Your task to perform on an android device: delete the emails in spam in the gmail app Image 0: 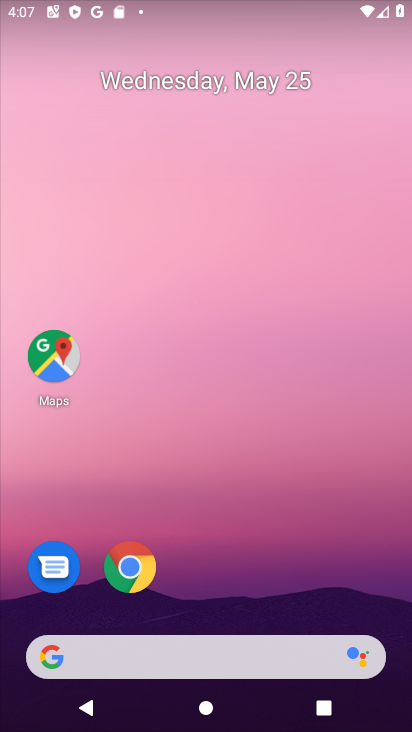
Step 0: drag from (246, 533) to (189, 10)
Your task to perform on an android device: delete the emails in spam in the gmail app Image 1: 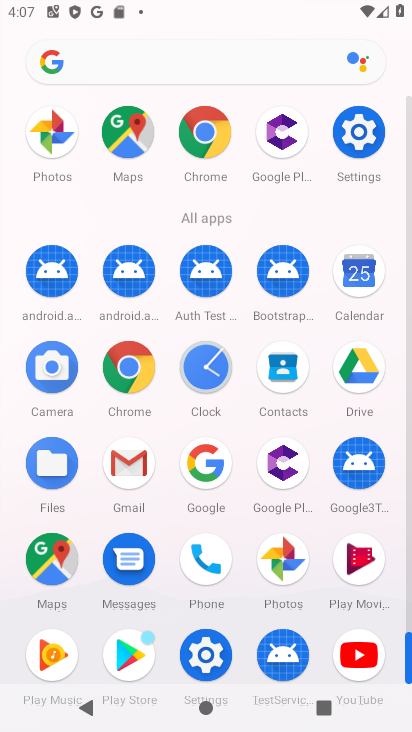
Step 1: drag from (6, 603) to (10, 284)
Your task to perform on an android device: delete the emails in spam in the gmail app Image 2: 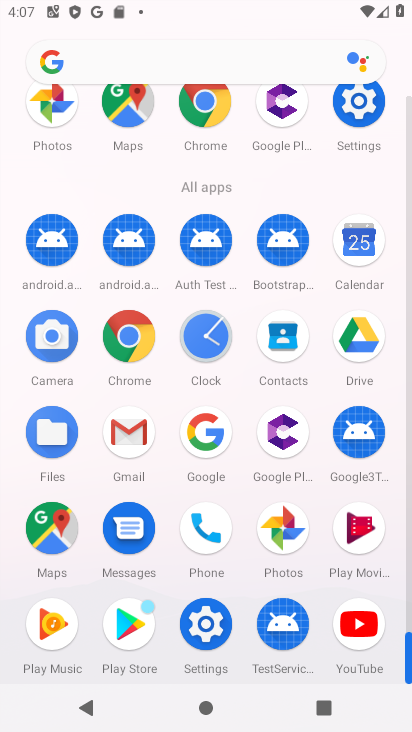
Step 2: click (125, 427)
Your task to perform on an android device: delete the emails in spam in the gmail app Image 3: 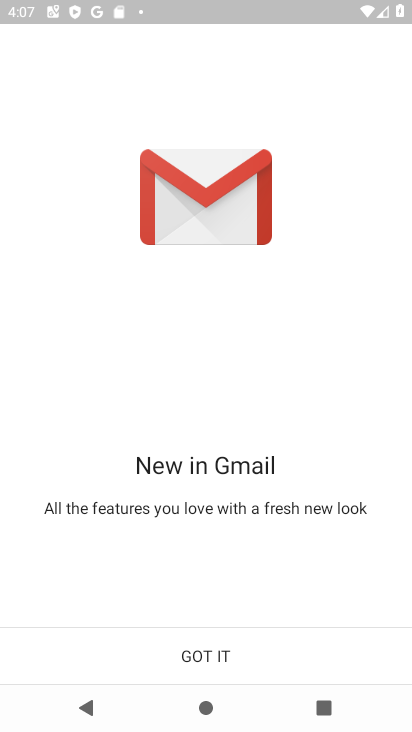
Step 3: click (192, 644)
Your task to perform on an android device: delete the emails in spam in the gmail app Image 4: 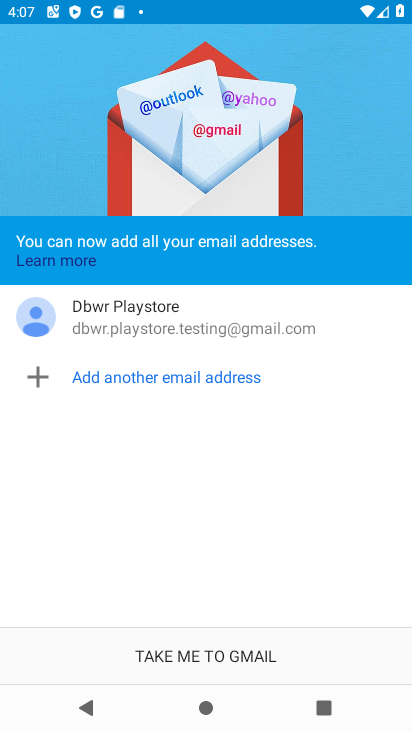
Step 4: click (192, 644)
Your task to perform on an android device: delete the emails in spam in the gmail app Image 5: 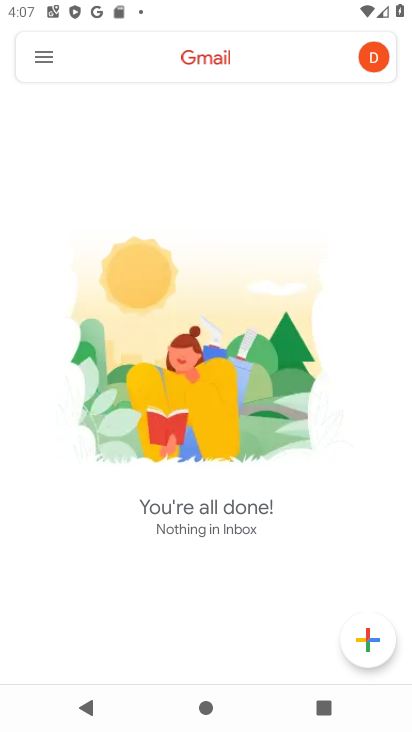
Step 5: click (39, 54)
Your task to perform on an android device: delete the emails in spam in the gmail app Image 6: 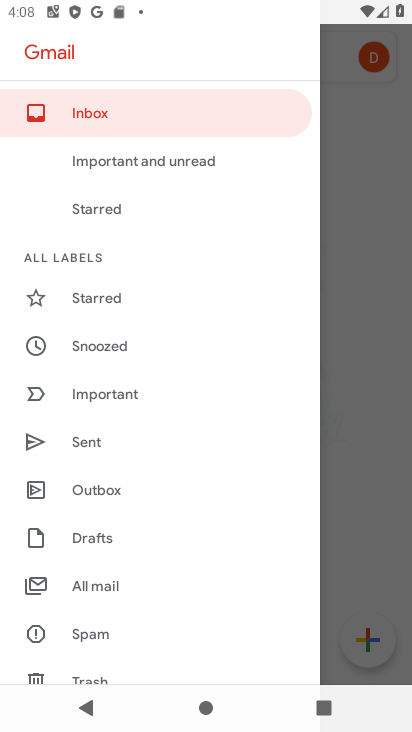
Step 6: drag from (140, 567) to (143, 312)
Your task to perform on an android device: delete the emails in spam in the gmail app Image 7: 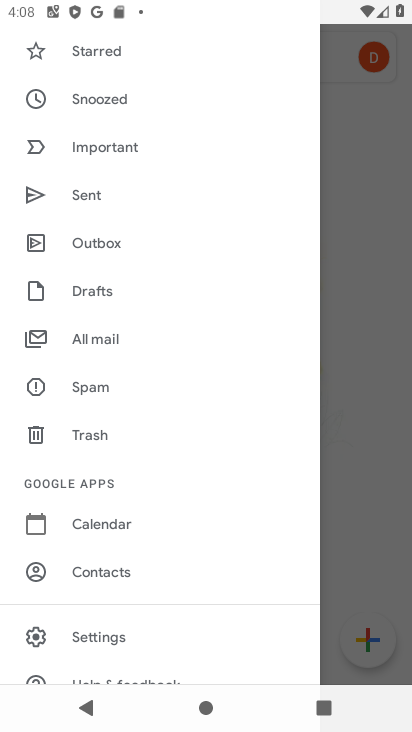
Step 7: click (88, 386)
Your task to perform on an android device: delete the emails in spam in the gmail app Image 8: 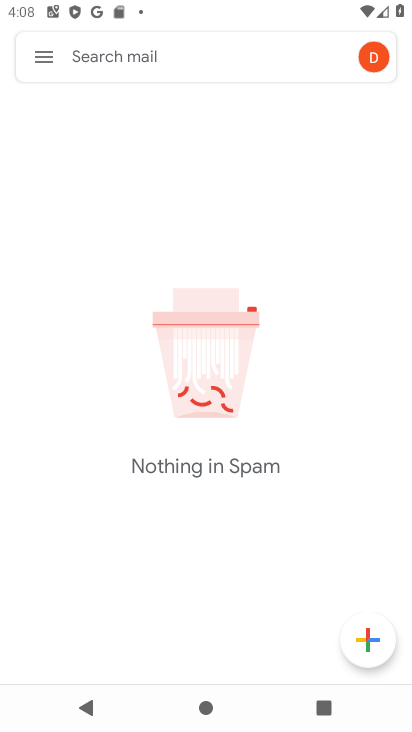
Step 8: task complete